Your task to perform on an android device: Go to Google maps Image 0: 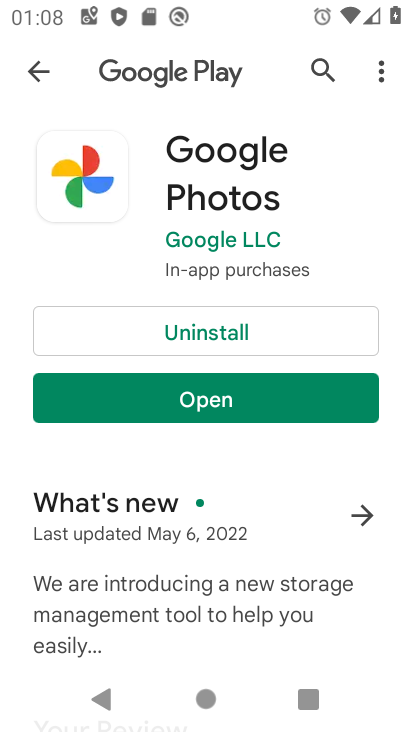
Step 0: press home button
Your task to perform on an android device: Go to Google maps Image 1: 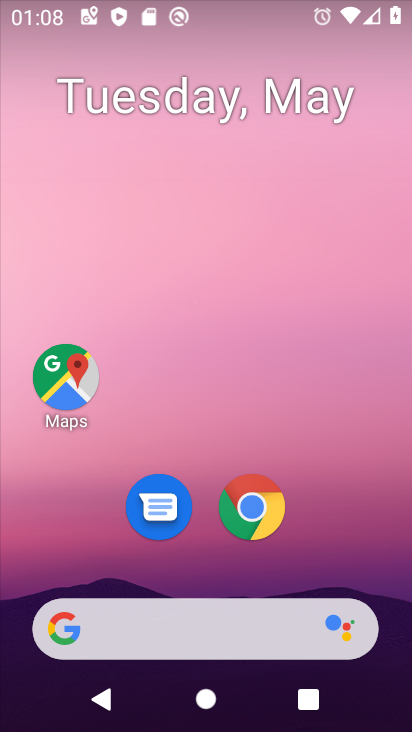
Step 1: click (75, 371)
Your task to perform on an android device: Go to Google maps Image 2: 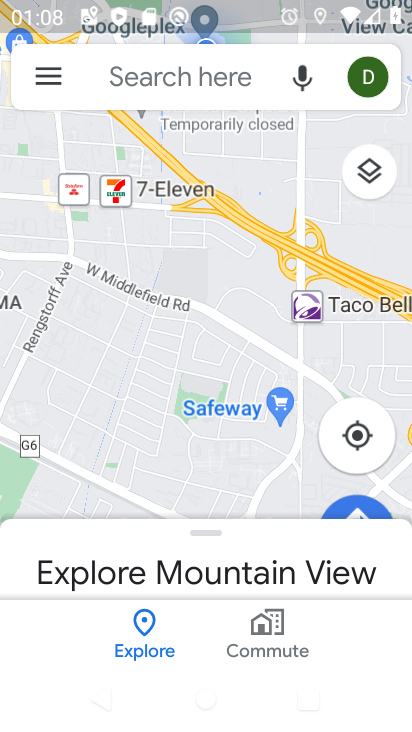
Step 2: task complete